Your task to perform on an android device: show emergency info Image 0: 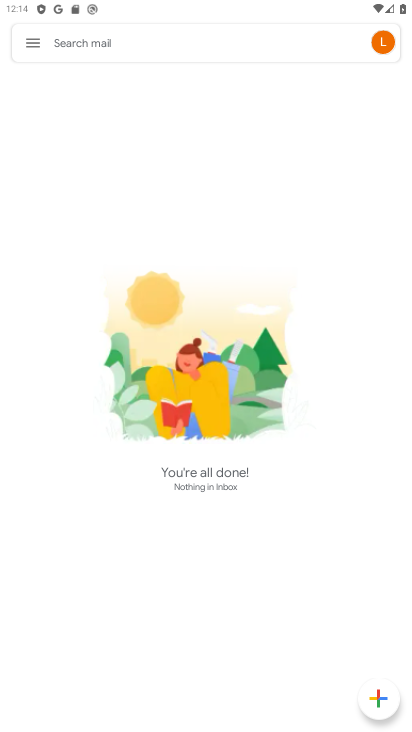
Step 0: press home button
Your task to perform on an android device: show emergency info Image 1: 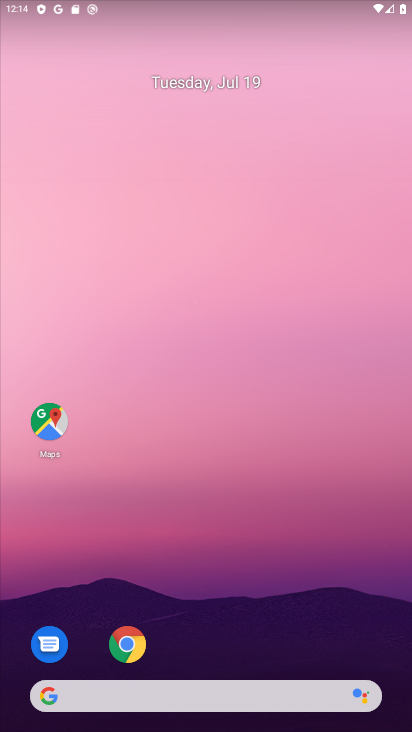
Step 1: drag from (238, 693) to (310, 260)
Your task to perform on an android device: show emergency info Image 2: 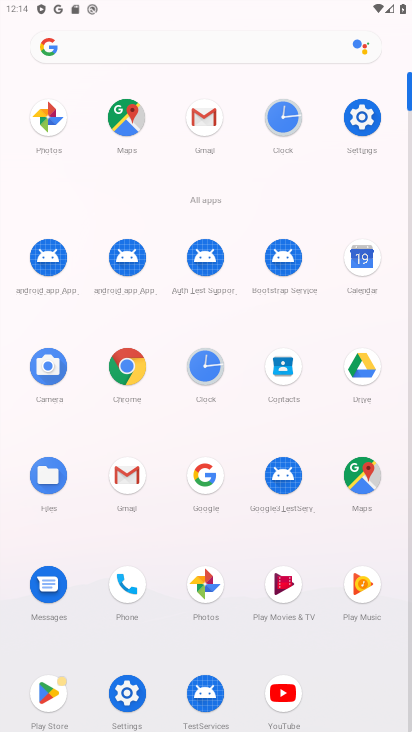
Step 2: click (114, 694)
Your task to perform on an android device: show emergency info Image 3: 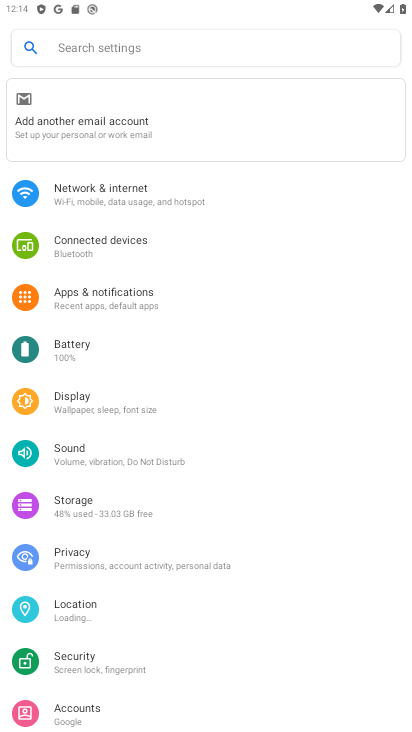
Step 3: drag from (144, 668) to (227, 219)
Your task to perform on an android device: show emergency info Image 4: 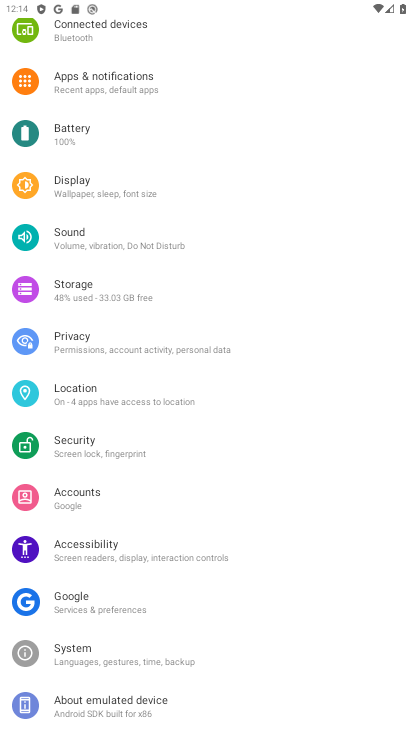
Step 4: click (188, 705)
Your task to perform on an android device: show emergency info Image 5: 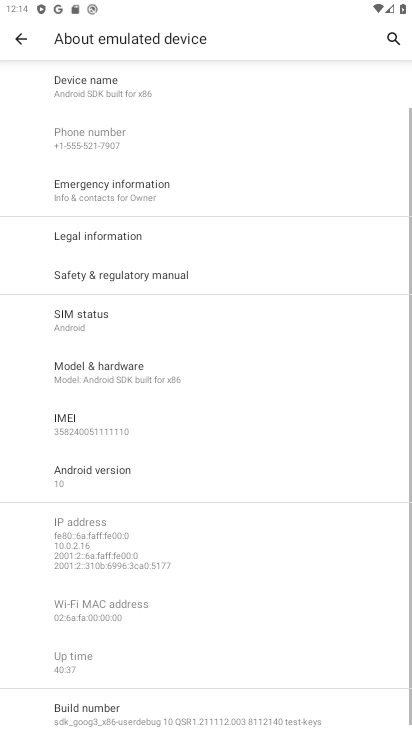
Step 5: click (145, 194)
Your task to perform on an android device: show emergency info Image 6: 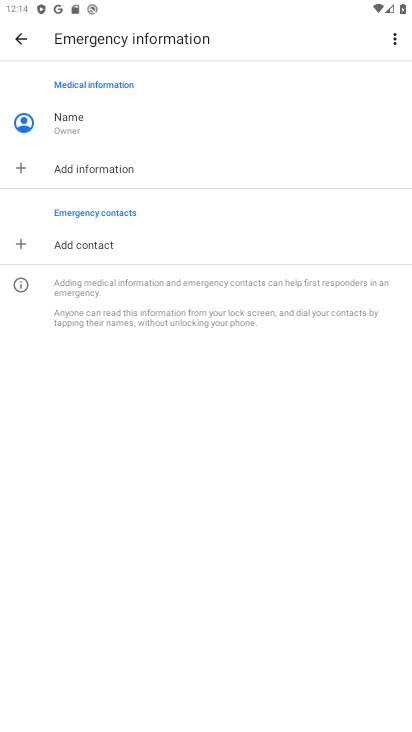
Step 6: task complete